Your task to perform on an android device: Go to privacy settings Image 0: 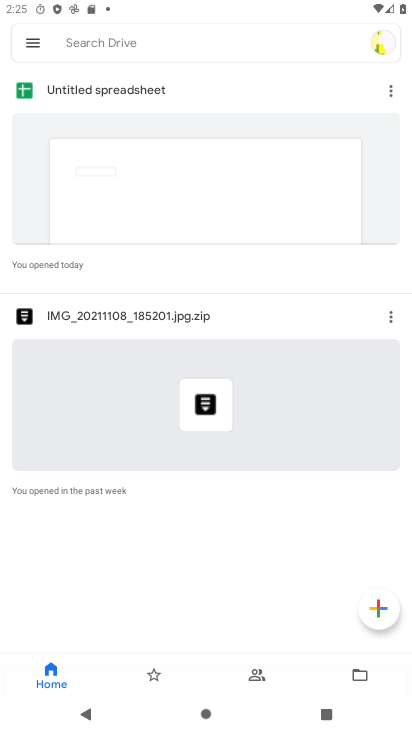
Step 0: press home button
Your task to perform on an android device: Go to privacy settings Image 1: 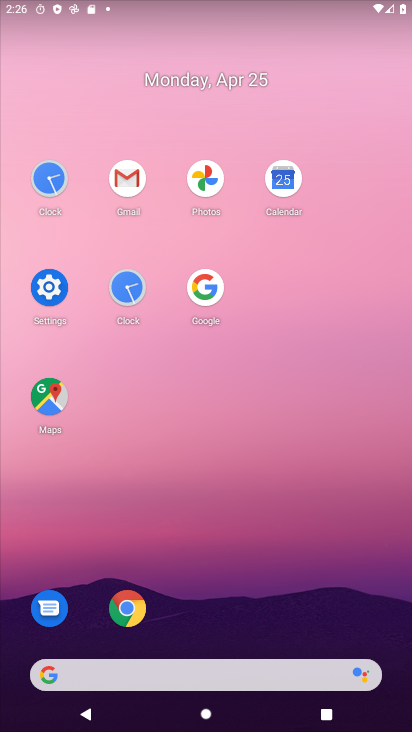
Step 1: click (51, 296)
Your task to perform on an android device: Go to privacy settings Image 2: 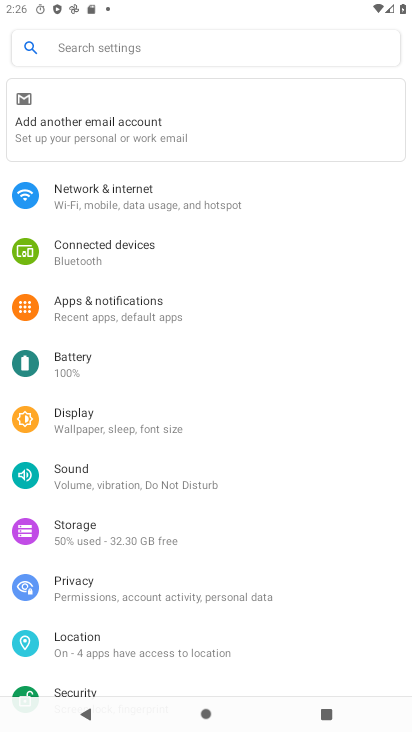
Step 2: click (119, 590)
Your task to perform on an android device: Go to privacy settings Image 3: 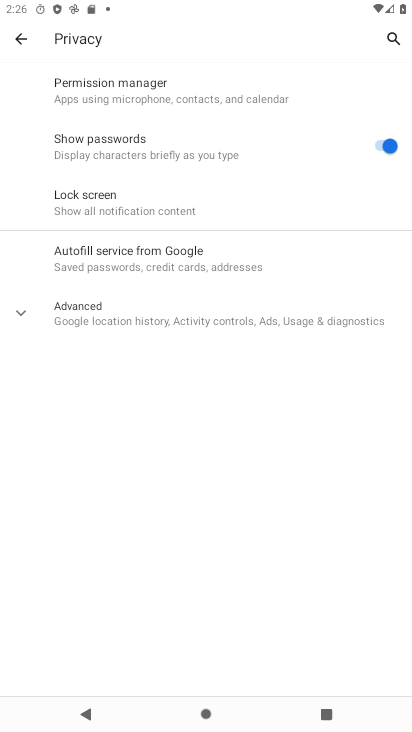
Step 3: task complete